Your task to perform on an android device: Open maps Image 0: 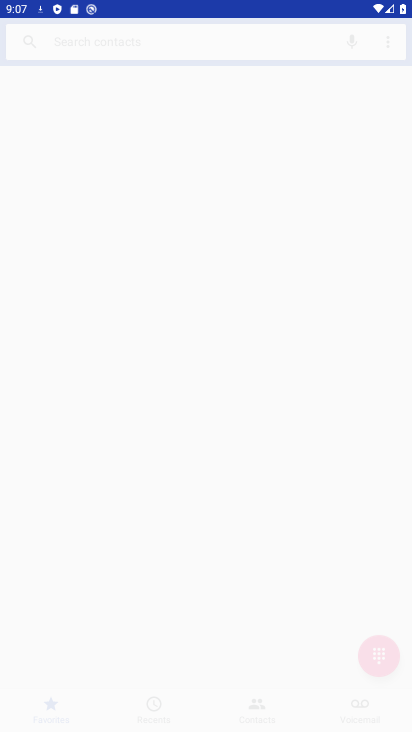
Step 0: press home button
Your task to perform on an android device: Open maps Image 1: 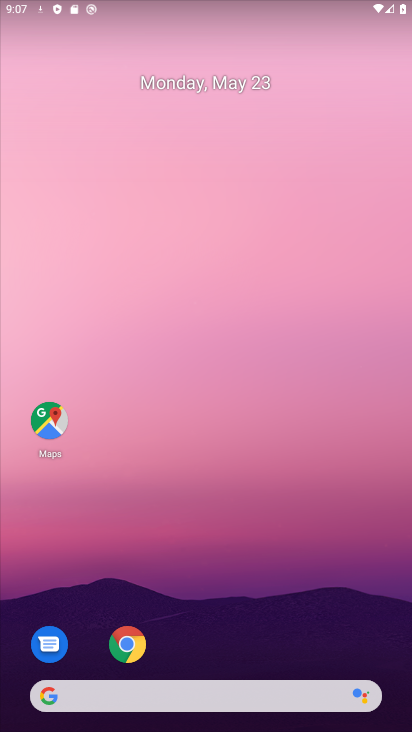
Step 1: drag from (256, 523) to (231, 168)
Your task to perform on an android device: Open maps Image 2: 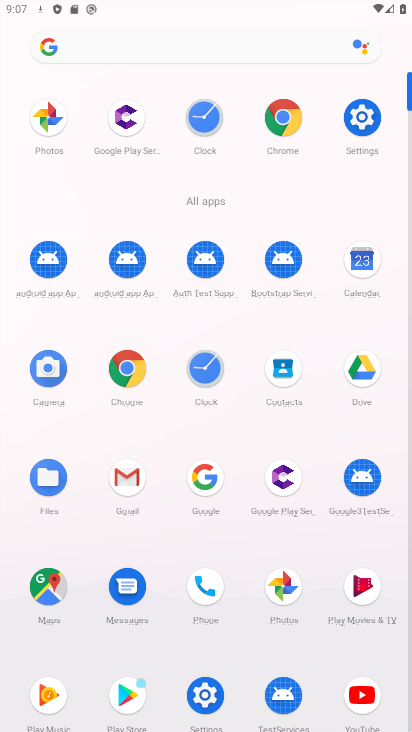
Step 2: click (47, 588)
Your task to perform on an android device: Open maps Image 3: 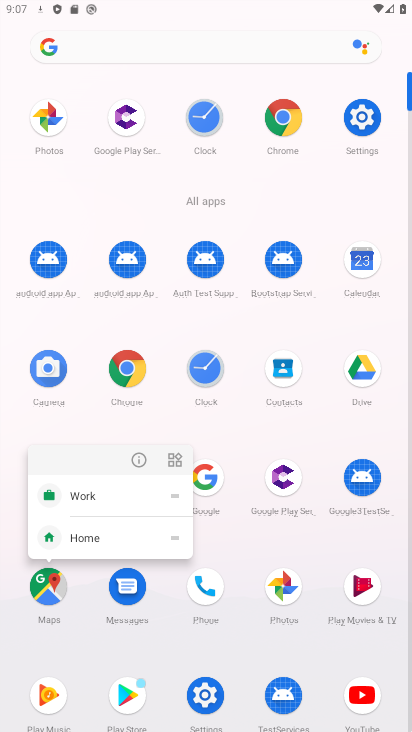
Step 3: click (64, 591)
Your task to perform on an android device: Open maps Image 4: 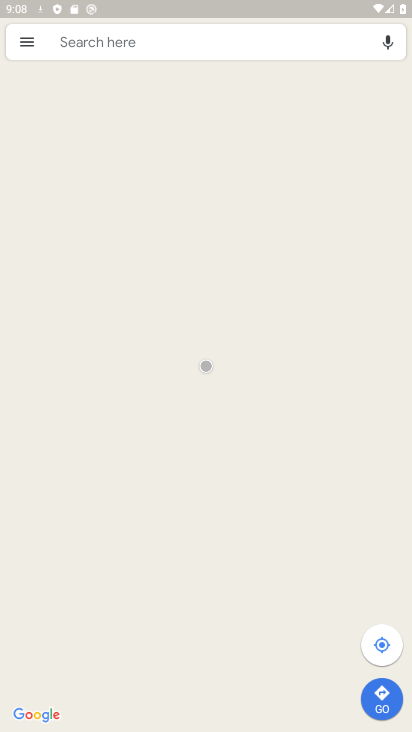
Step 4: click (367, 646)
Your task to perform on an android device: Open maps Image 5: 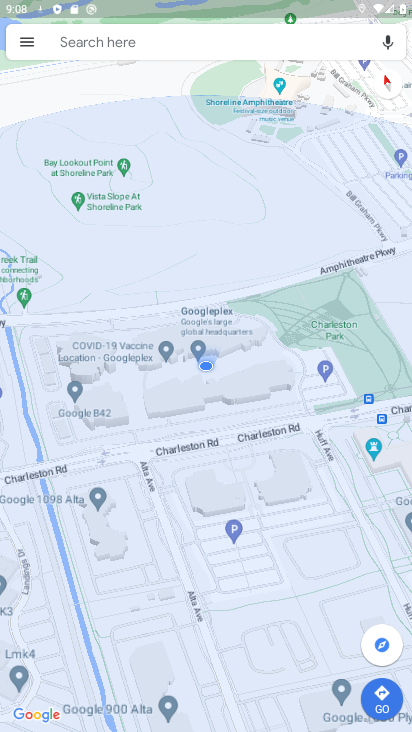
Step 5: click (380, 651)
Your task to perform on an android device: Open maps Image 6: 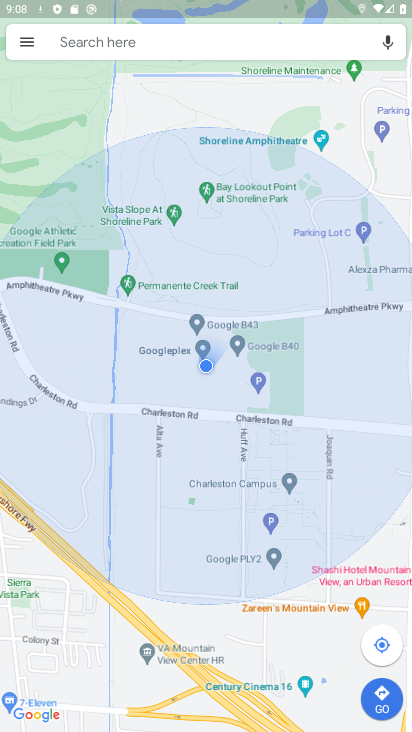
Step 6: task complete